Your task to perform on an android device: make emails show in primary in the gmail app Image 0: 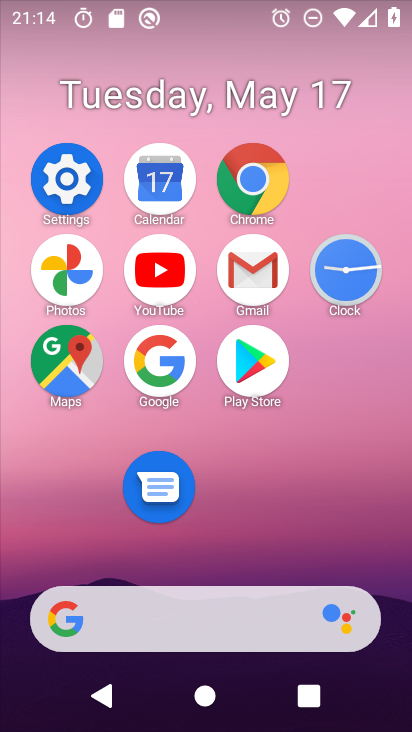
Step 0: click (248, 275)
Your task to perform on an android device: make emails show in primary in the gmail app Image 1: 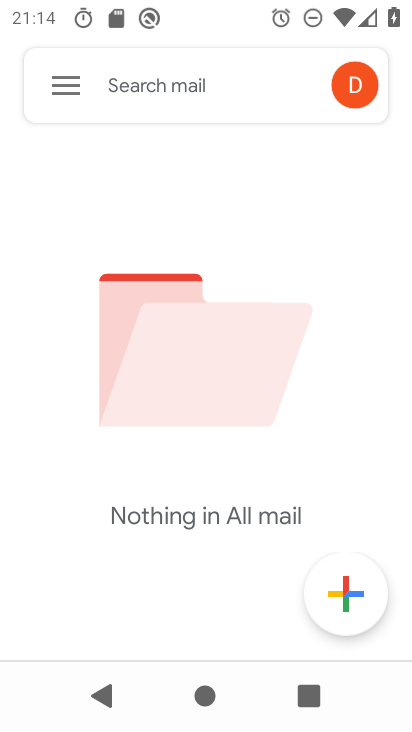
Step 1: click (75, 80)
Your task to perform on an android device: make emails show in primary in the gmail app Image 2: 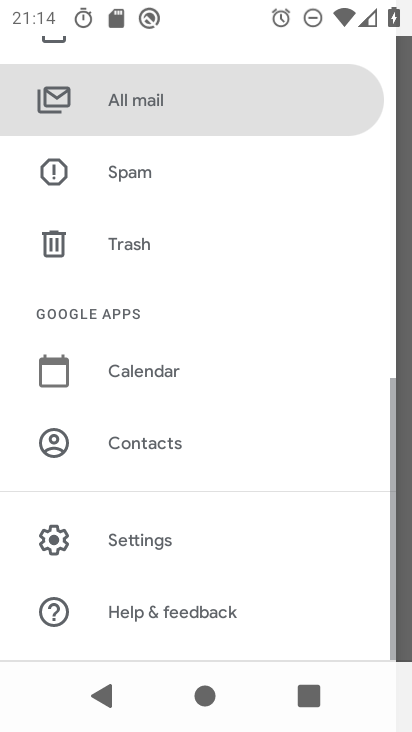
Step 2: drag from (168, 543) to (226, 178)
Your task to perform on an android device: make emails show in primary in the gmail app Image 3: 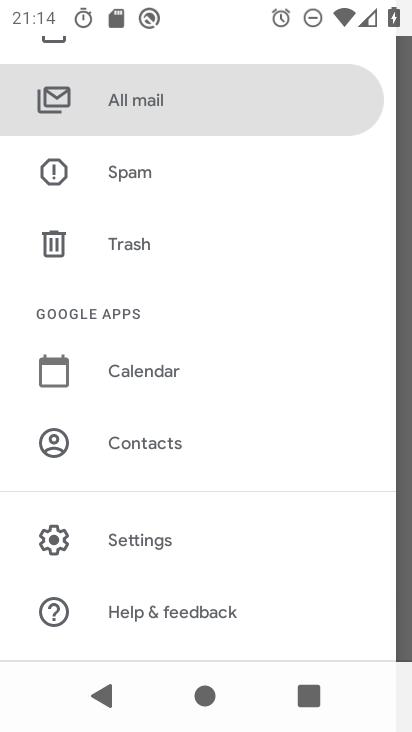
Step 3: click (204, 543)
Your task to perform on an android device: make emails show in primary in the gmail app Image 4: 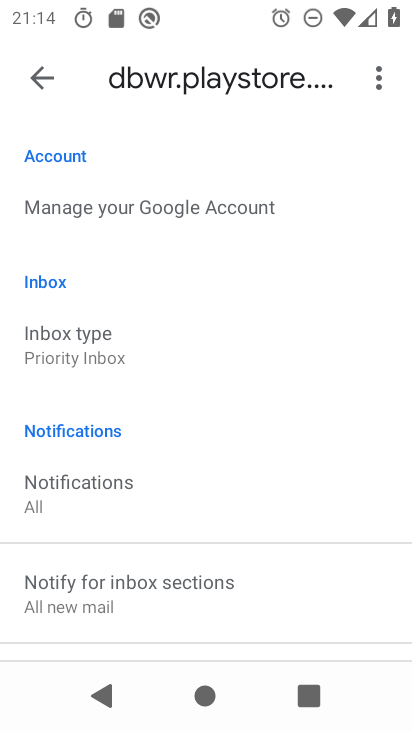
Step 4: click (184, 346)
Your task to perform on an android device: make emails show in primary in the gmail app Image 5: 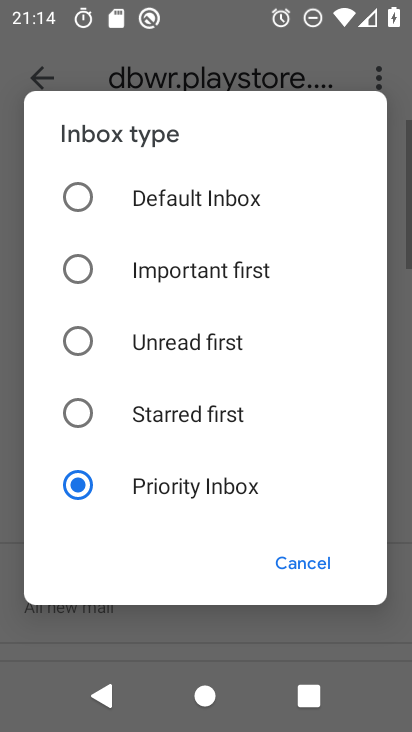
Step 5: click (121, 207)
Your task to perform on an android device: make emails show in primary in the gmail app Image 6: 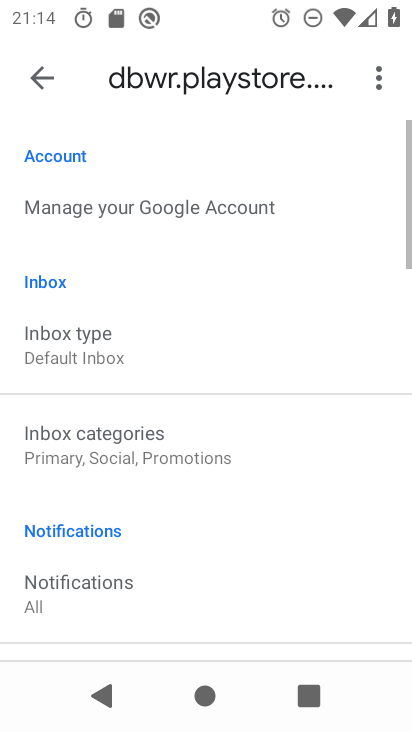
Step 6: click (167, 446)
Your task to perform on an android device: make emails show in primary in the gmail app Image 7: 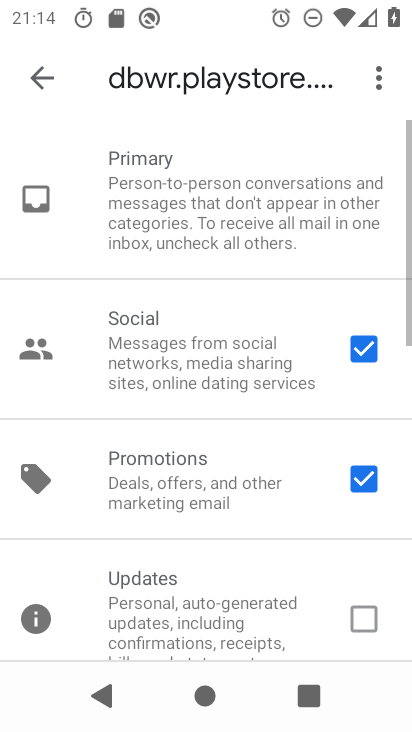
Step 7: click (366, 353)
Your task to perform on an android device: make emails show in primary in the gmail app Image 8: 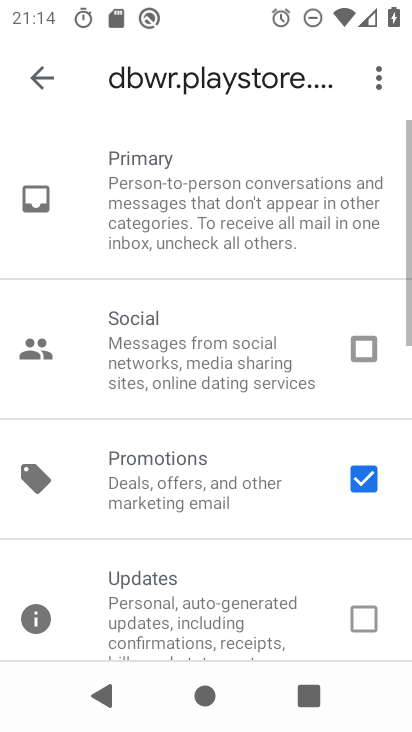
Step 8: click (372, 474)
Your task to perform on an android device: make emails show in primary in the gmail app Image 9: 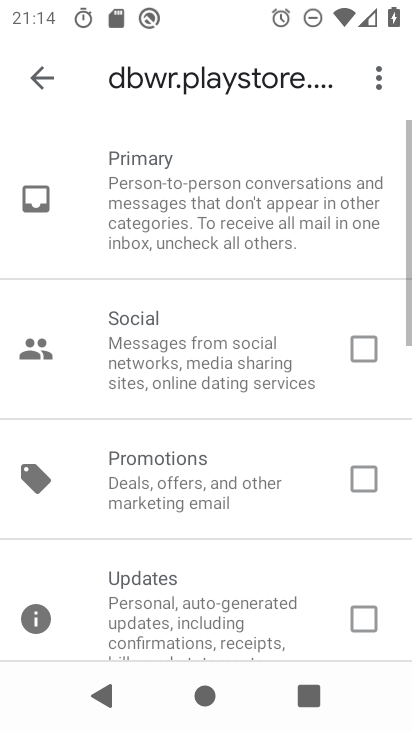
Step 9: task complete